Your task to perform on an android device: Go to notification settings Image 0: 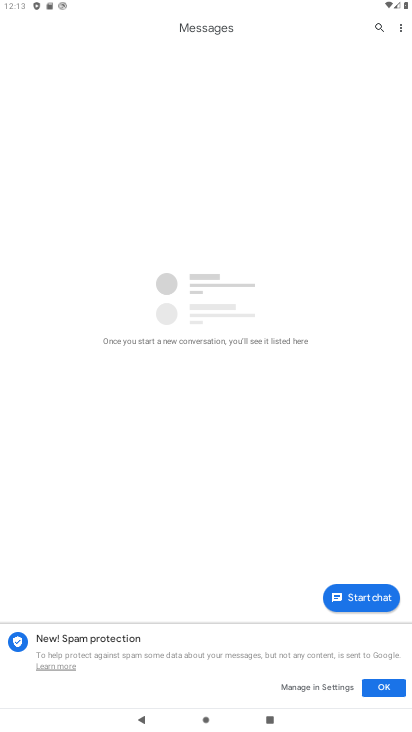
Step 0: press home button
Your task to perform on an android device: Go to notification settings Image 1: 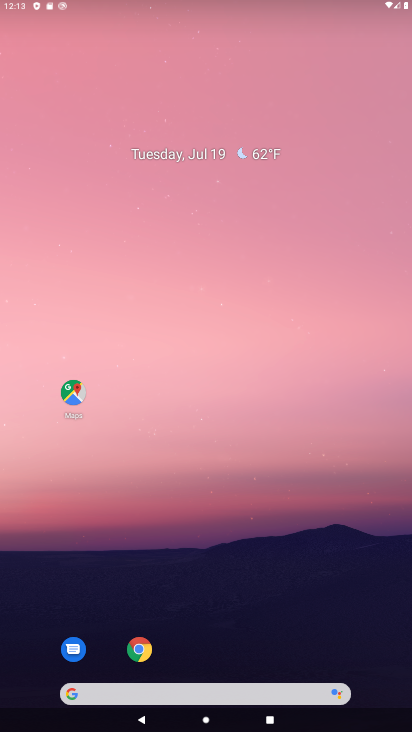
Step 1: drag from (220, 657) to (221, 69)
Your task to perform on an android device: Go to notification settings Image 2: 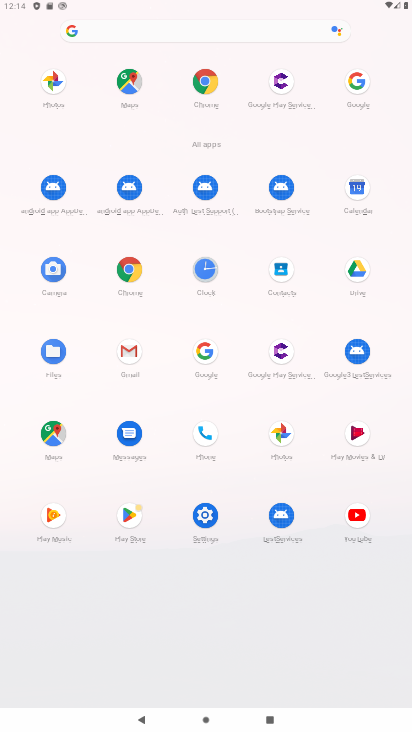
Step 2: click (204, 517)
Your task to perform on an android device: Go to notification settings Image 3: 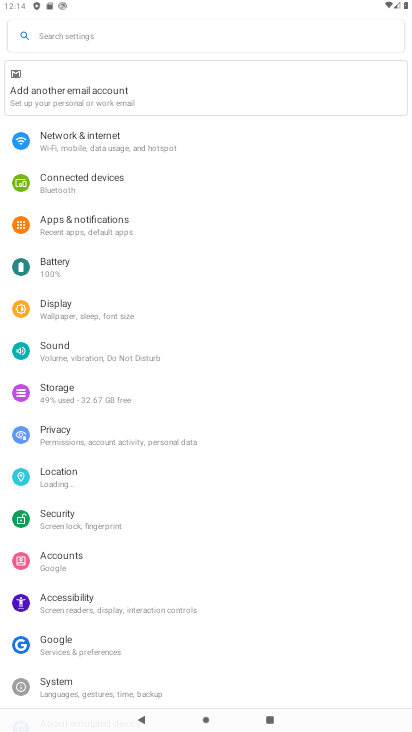
Step 3: click (107, 223)
Your task to perform on an android device: Go to notification settings Image 4: 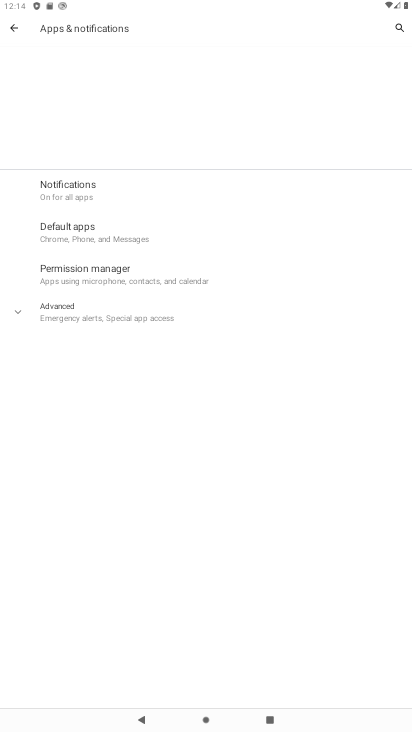
Step 4: click (61, 184)
Your task to perform on an android device: Go to notification settings Image 5: 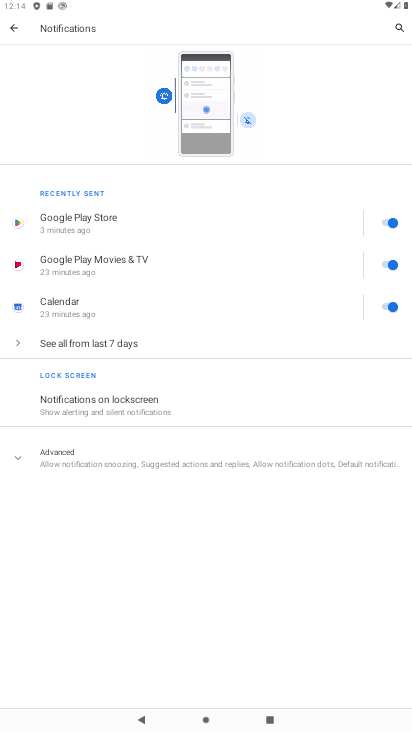
Step 5: task complete